Your task to perform on an android device: empty trash in google photos Image 0: 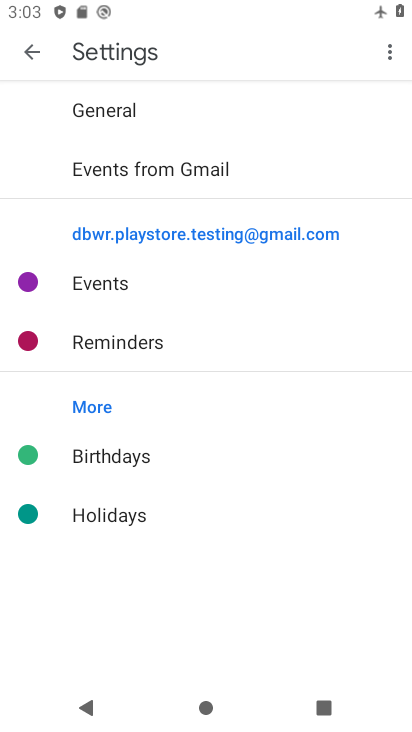
Step 0: press home button
Your task to perform on an android device: empty trash in google photos Image 1: 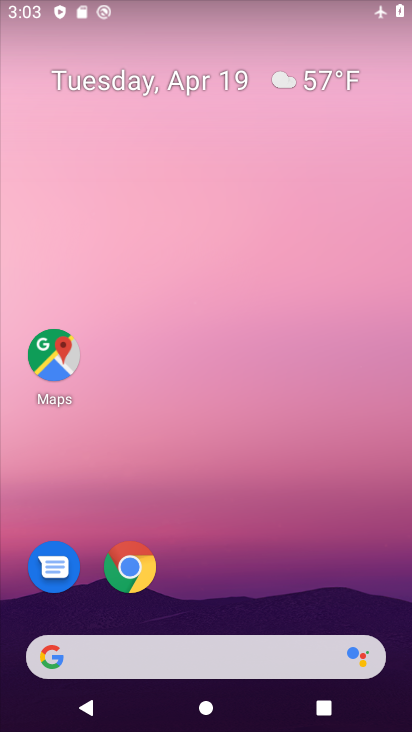
Step 1: drag from (367, 603) to (371, 91)
Your task to perform on an android device: empty trash in google photos Image 2: 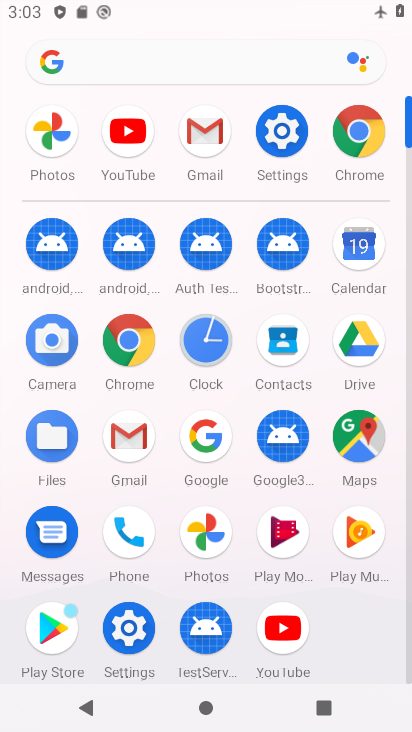
Step 2: click (203, 538)
Your task to perform on an android device: empty trash in google photos Image 3: 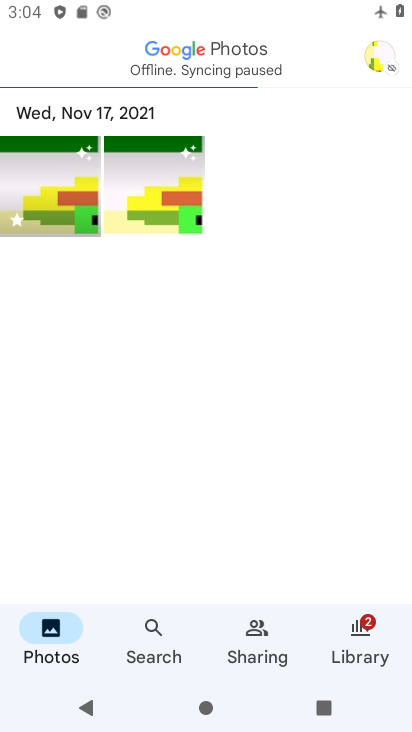
Step 3: click (386, 51)
Your task to perform on an android device: empty trash in google photos Image 4: 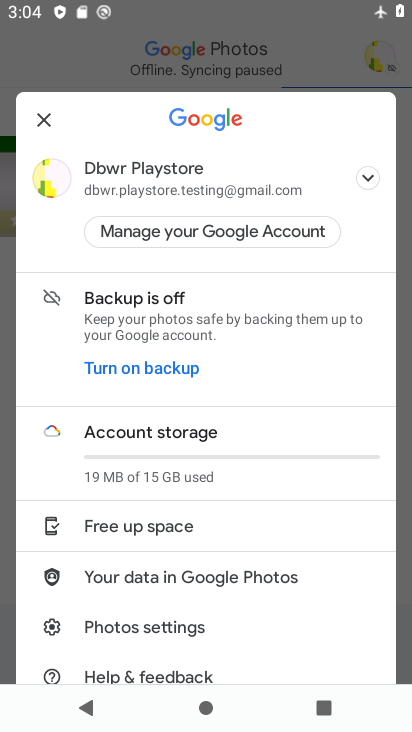
Step 4: task complete